Your task to perform on an android device: Show me popular videos on Youtube Image 0: 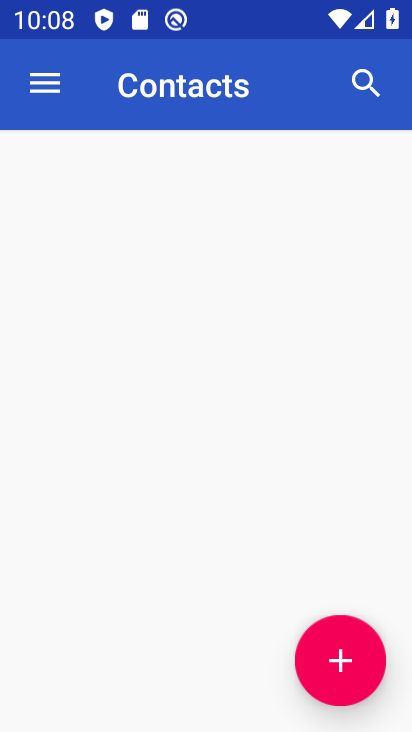
Step 0: press home button
Your task to perform on an android device: Show me popular videos on Youtube Image 1: 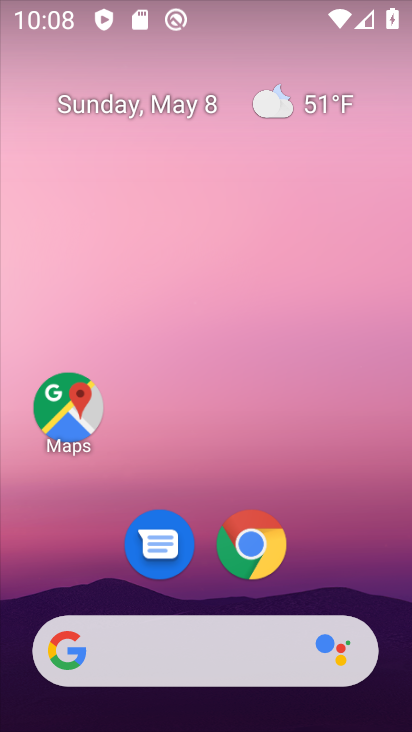
Step 1: drag from (381, 540) to (382, 104)
Your task to perform on an android device: Show me popular videos on Youtube Image 2: 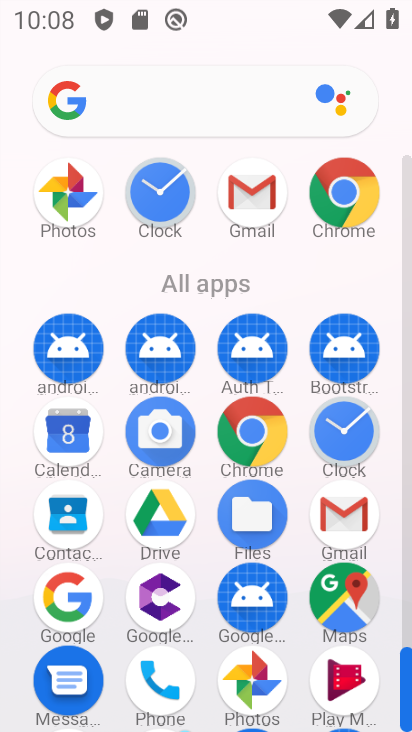
Step 2: drag from (405, 566) to (371, 63)
Your task to perform on an android device: Show me popular videos on Youtube Image 3: 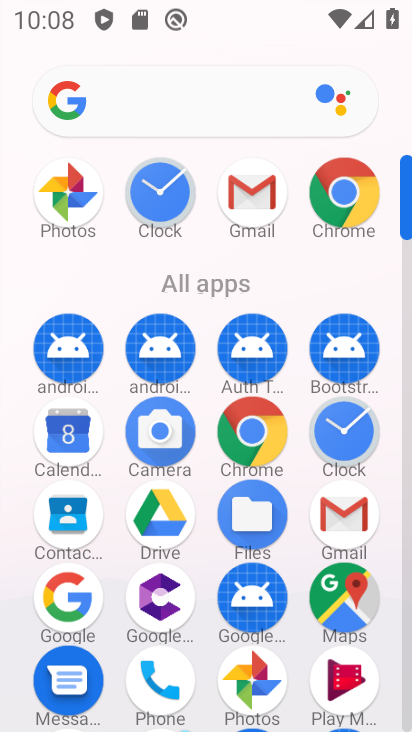
Step 3: drag from (385, 534) to (371, 4)
Your task to perform on an android device: Show me popular videos on Youtube Image 4: 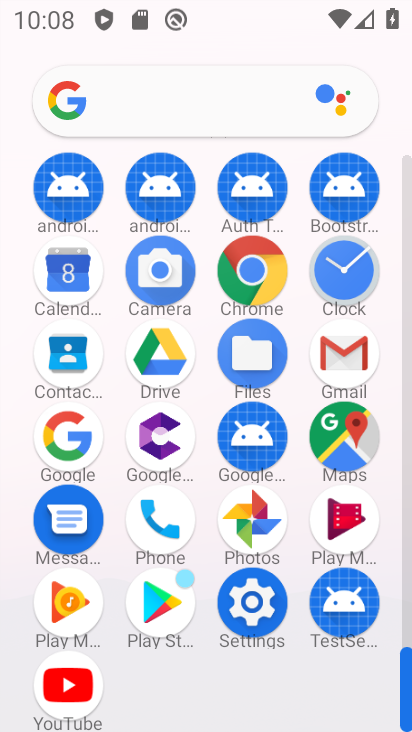
Step 4: click (65, 694)
Your task to perform on an android device: Show me popular videos on Youtube Image 5: 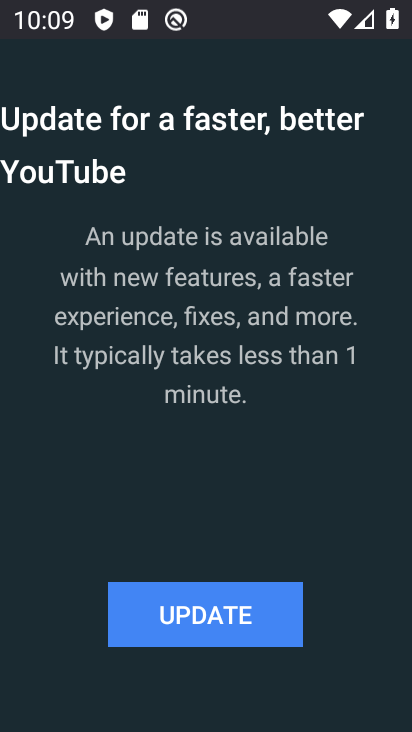
Step 5: click (267, 614)
Your task to perform on an android device: Show me popular videos on Youtube Image 6: 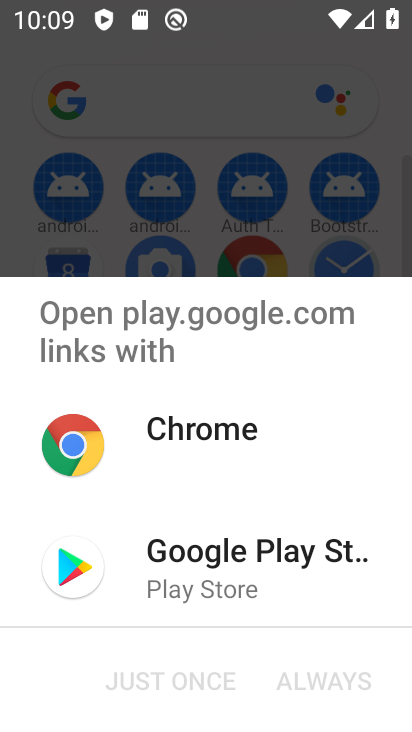
Step 6: click (181, 576)
Your task to perform on an android device: Show me popular videos on Youtube Image 7: 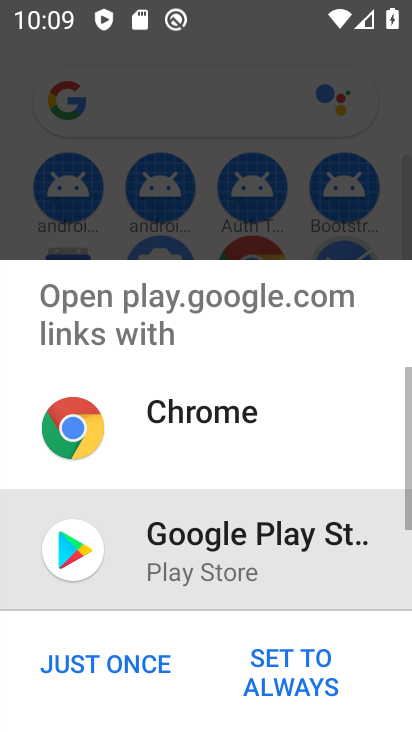
Step 7: click (145, 662)
Your task to perform on an android device: Show me popular videos on Youtube Image 8: 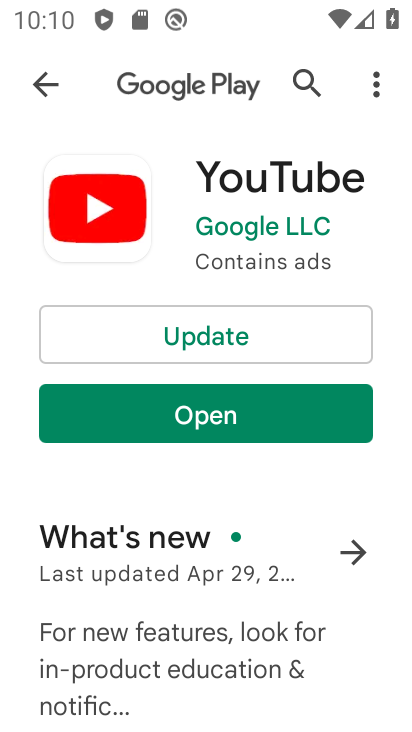
Step 8: click (238, 410)
Your task to perform on an android device: Show me popular videos on Youtube Image 9: 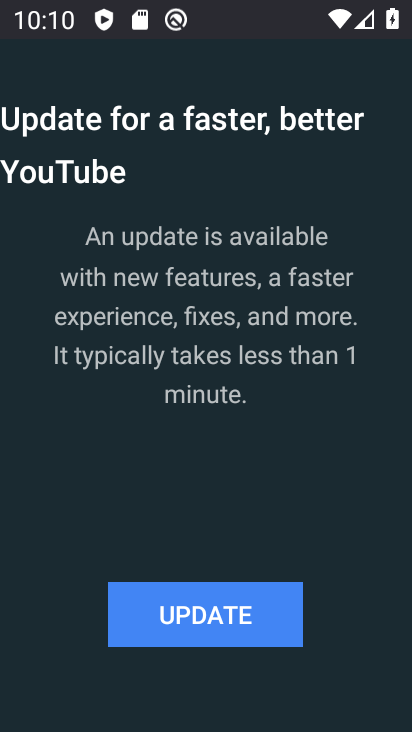
Step 9: click (197, 622)
Your task to perform on an android device: Show me popular videos on Youtube Image 10: 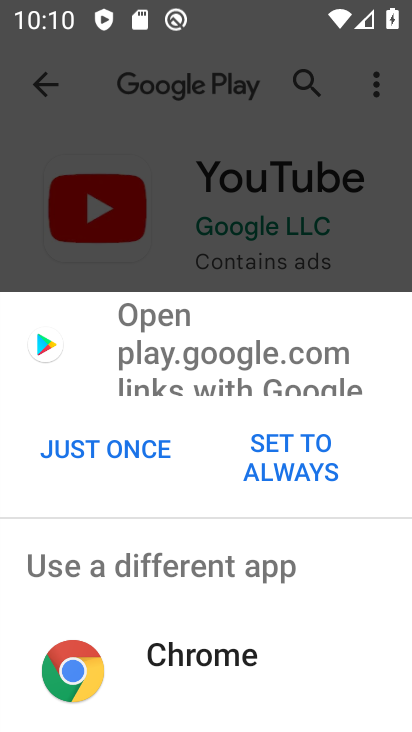
Step 10: click (87, 457)
Your task to perform on an android device: Show me popular videos on Youtube Image 11: 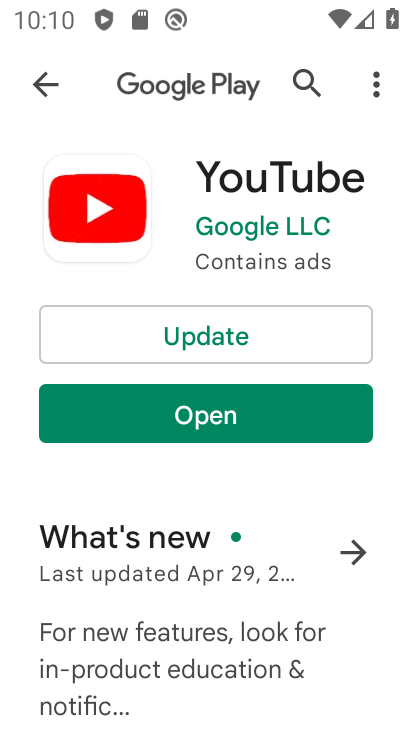
Step 11: click (230, 350)
Your task to perform on an android device: Show me popular videos on Youtube Image 12: 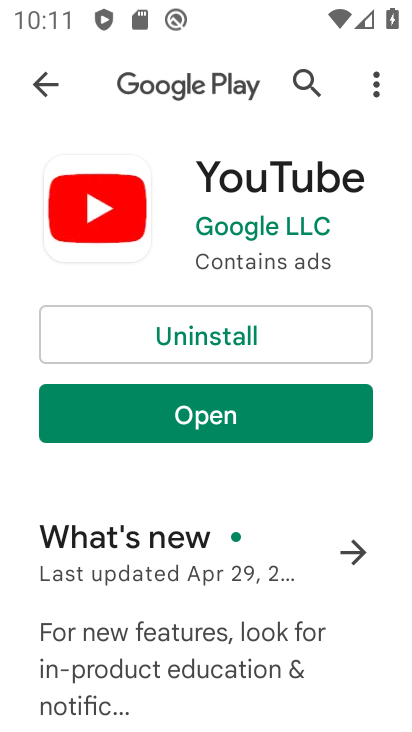
Step 12: click (199, 421)
Your task to perform on an android device: Show me popular videos on Youtube Image 13: 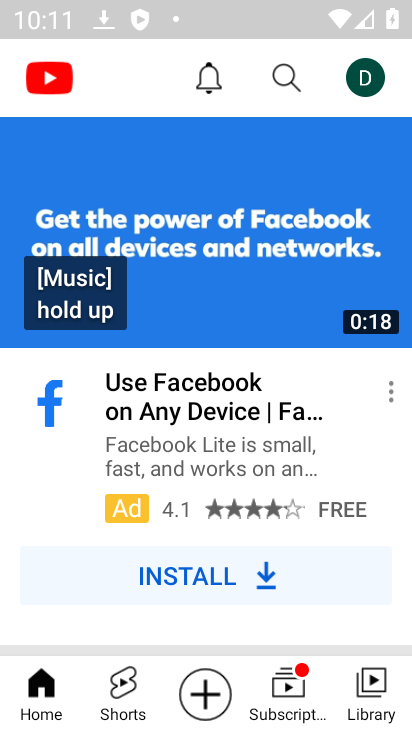
Step 13: click (280, 90)
Your task to perform on an android device: Show me popular videos on Youtube Image 14: 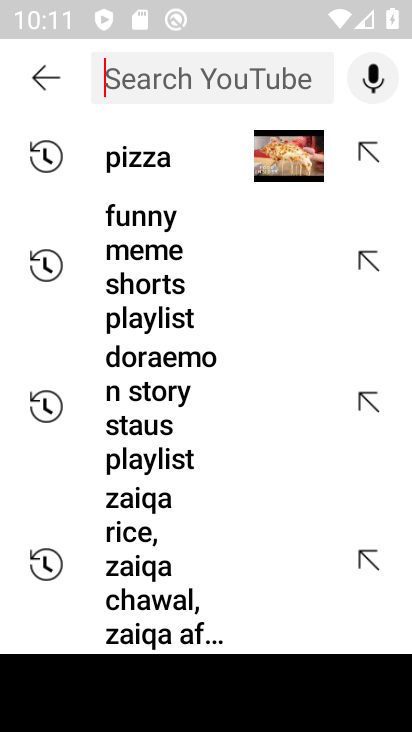
Step 14: type "popular video"
Your task to perform on an android device: Show me popular videos on Youtube Image 15: 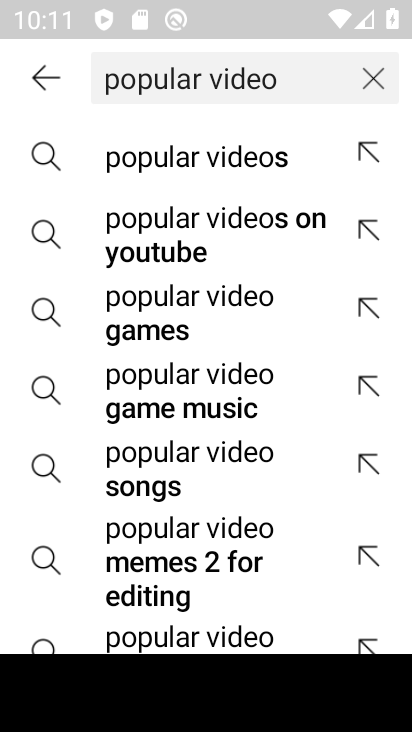
Step 15: click (174, 166)
Your task to perform on an android device: Show me popular videos on Youtube Image 16: 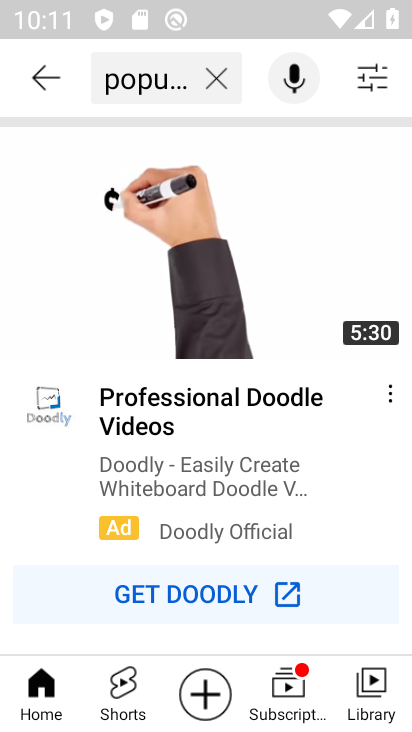
Step 16: task complete